Your task to perform on an android device: Go to wifi settings Image 0: 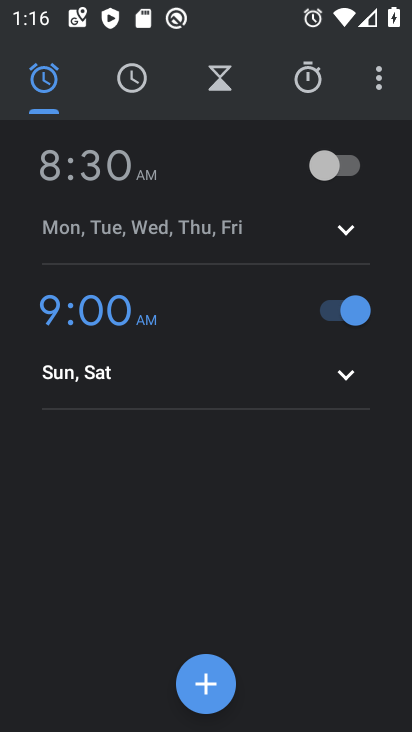
Step 0: press home button
Your task to perform on an android device: Go to wifi settings Image 1: 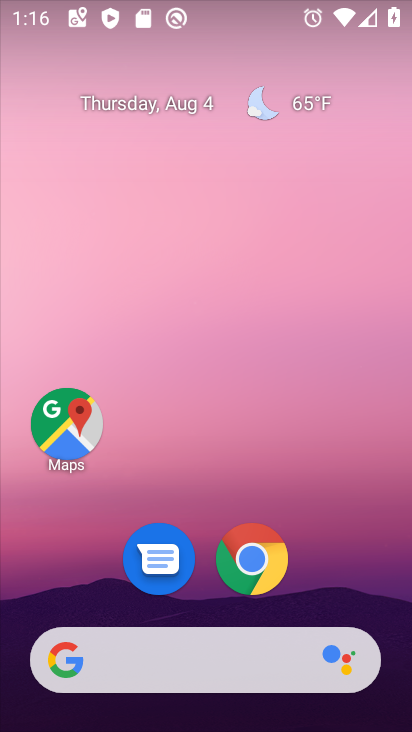
Step 1: drag from (195, 678) to (171, 178)
Your task to perform on an android device: Go to wifi settings Image 2: 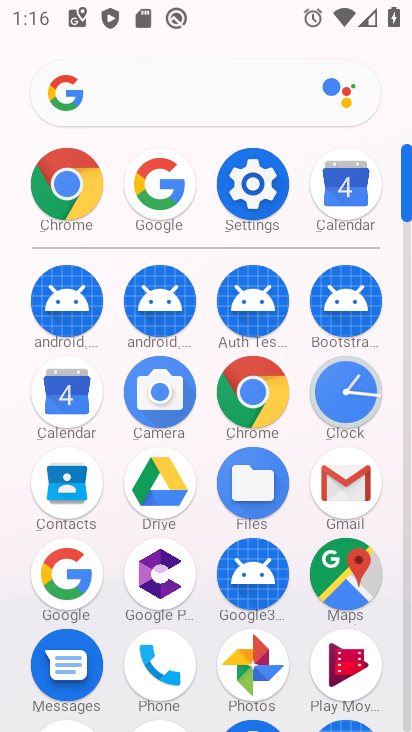
Step 2: click (252, 182)
Your task to perform on an android device: Go to wifi settings Image 3: 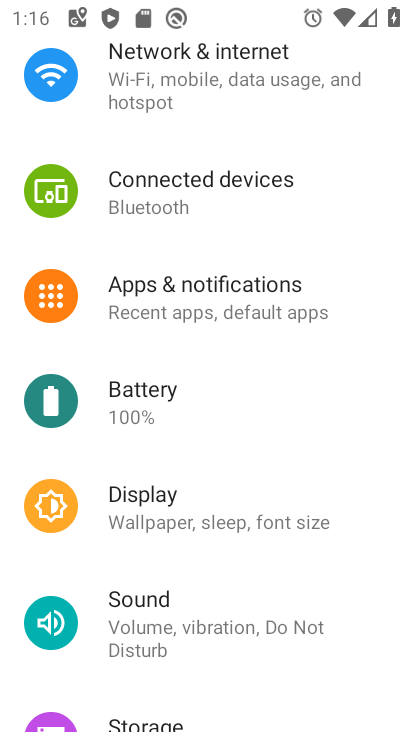
Step 3: drag from (269, 145) to (270, 281)
Your task to perform on an android device: Go to wifi settings Image 4: 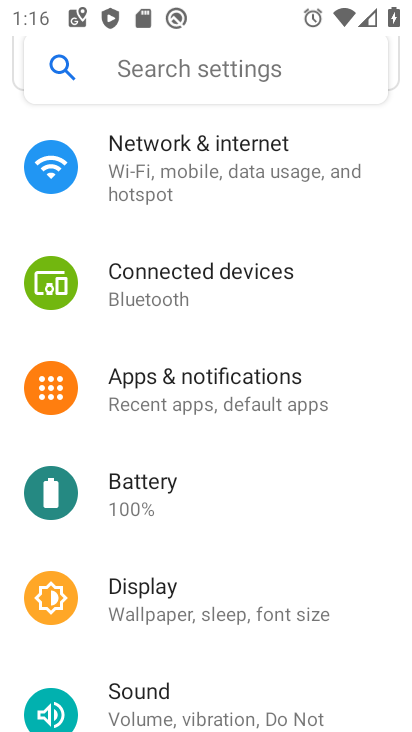
Step 4: drag from (248, 127) to (216, 332)
Your task to perform on an android device: Go to wifi settings Image 5: 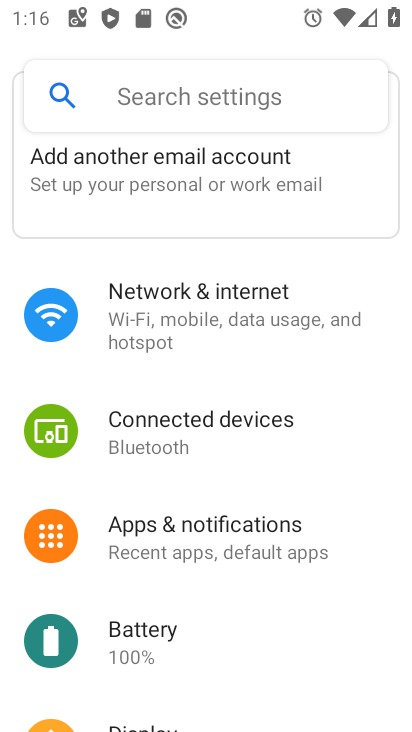
Step 5: drag from (177, 476) to (279, 322)
Your task to perform on an android device: Go to wifi settings Image 6: 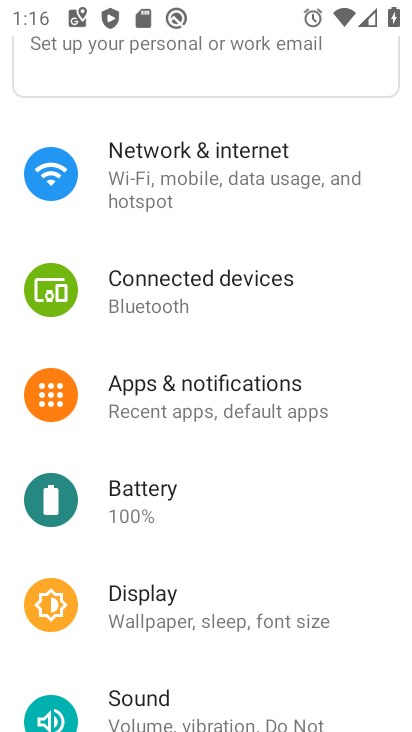
Step 6: click (196, 176)
Your task to perform on an android device: Go to wifi settings Image 7: 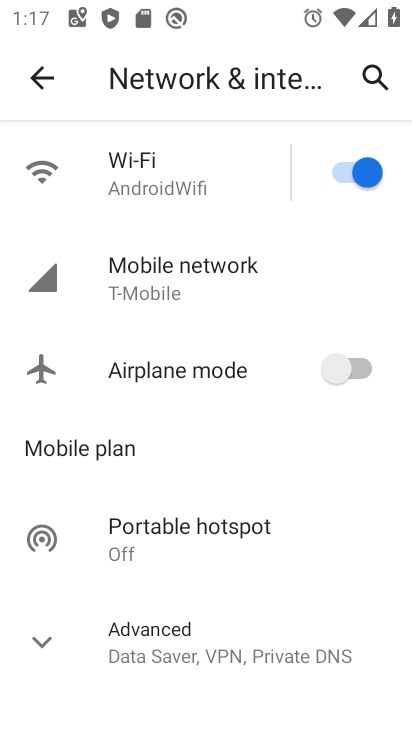
Step 7: click (162, 189)
Your task to perform on an android device: Go to wifi settings Image 8: 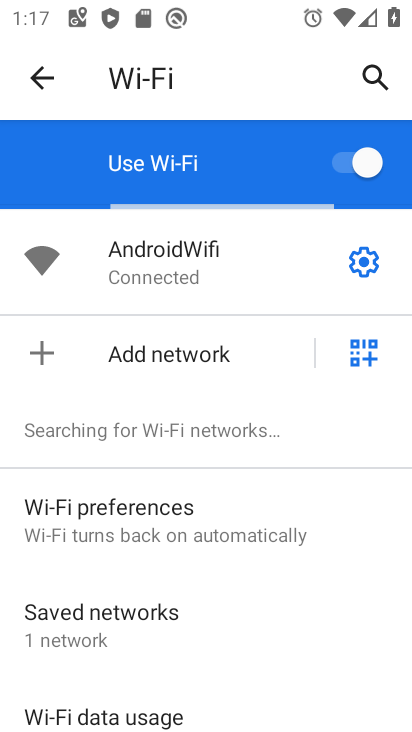
Step 8: click (366, 260)
Your task to perform on an android device: Go to wifi settings Image 9: 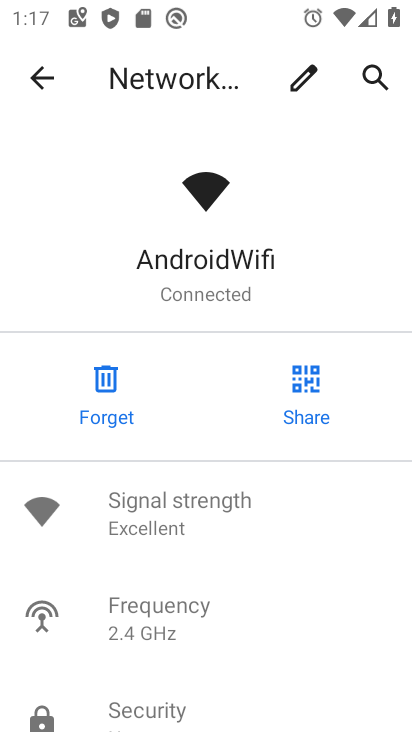
Step 9: task complete